Your task to perform on an android device: Search for "panasonic triple a" on target, select the first entry, add it to the cart, then select checkout. Image 0: 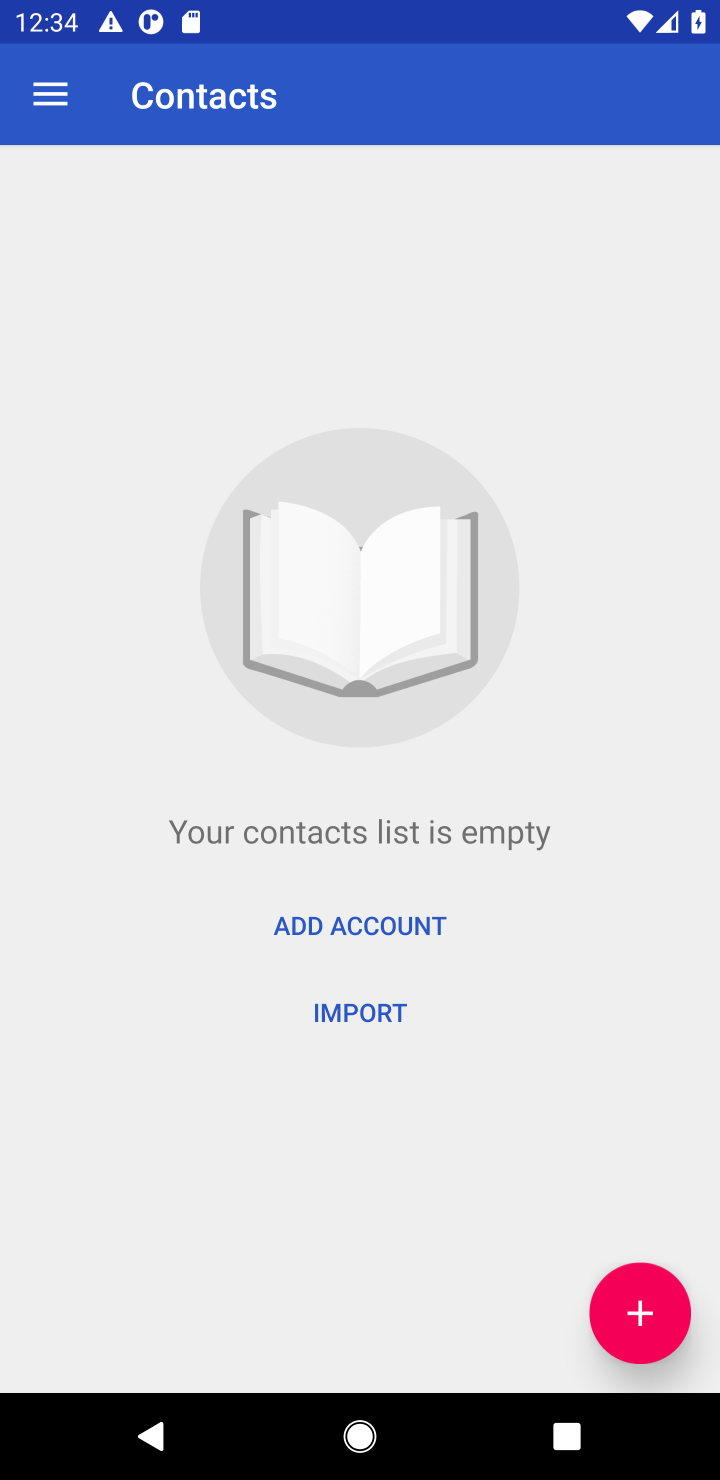
Step 0: press home button
Your task to perform on an android device: Search for "panasonic triple a" on target, select the first entry, add it to the cart, then select checkout. Image 1: 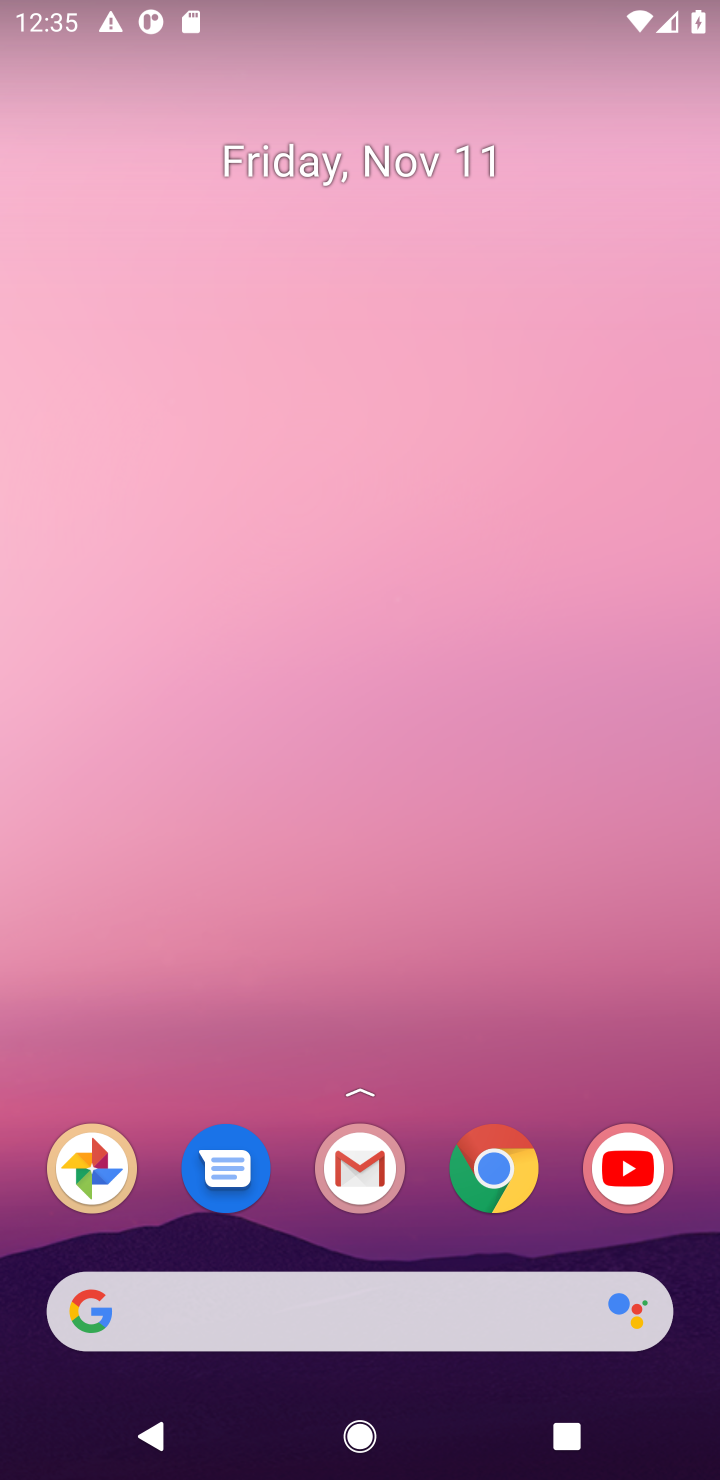
Step 1: click (484, 1178)
Your task to perform on an android device: Search for "panasonic triple a" on target, select the first entry, add it to the cart, then select checkout. Image 2: 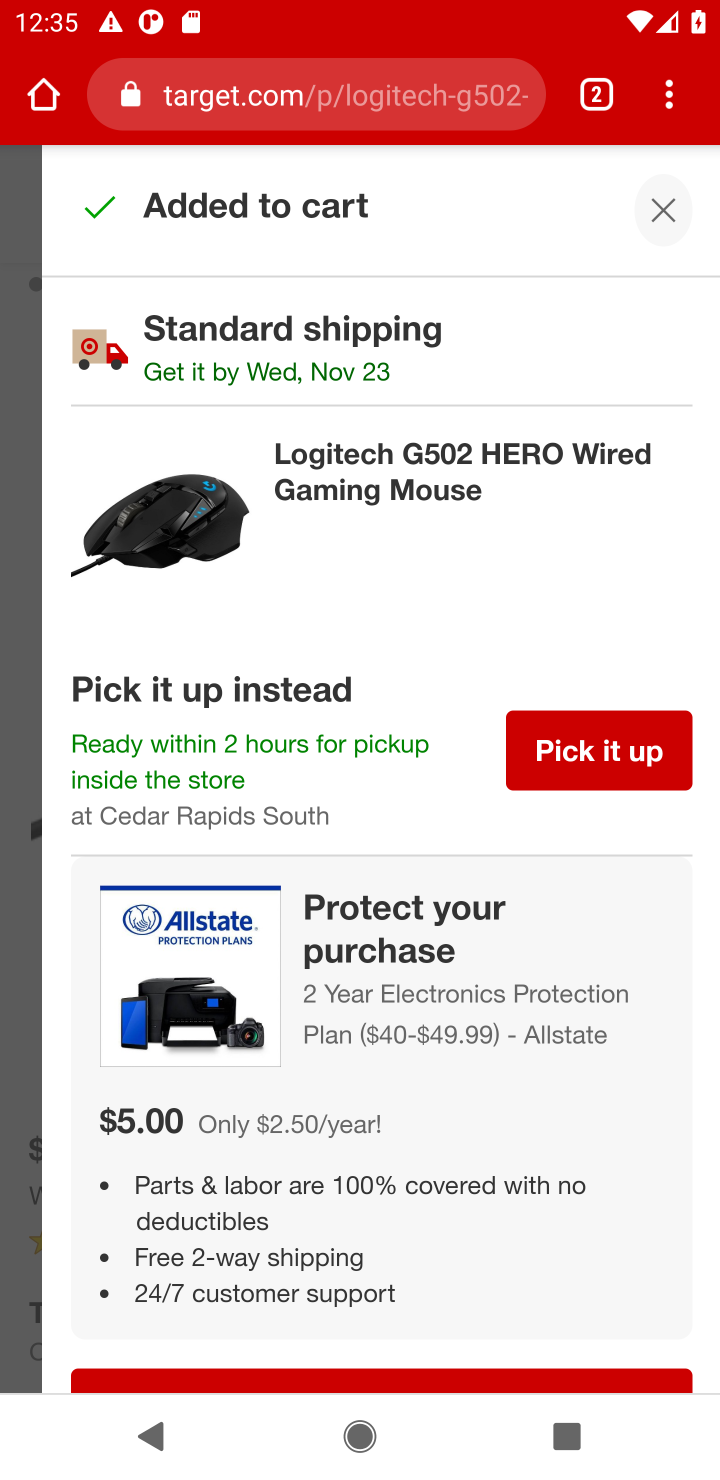
Step 2: click (660, 211)
Your task to perform on an android device: Search for "panasonic triple a" on target, select the first entry, add it to the cart, then select checkout. Image 3: 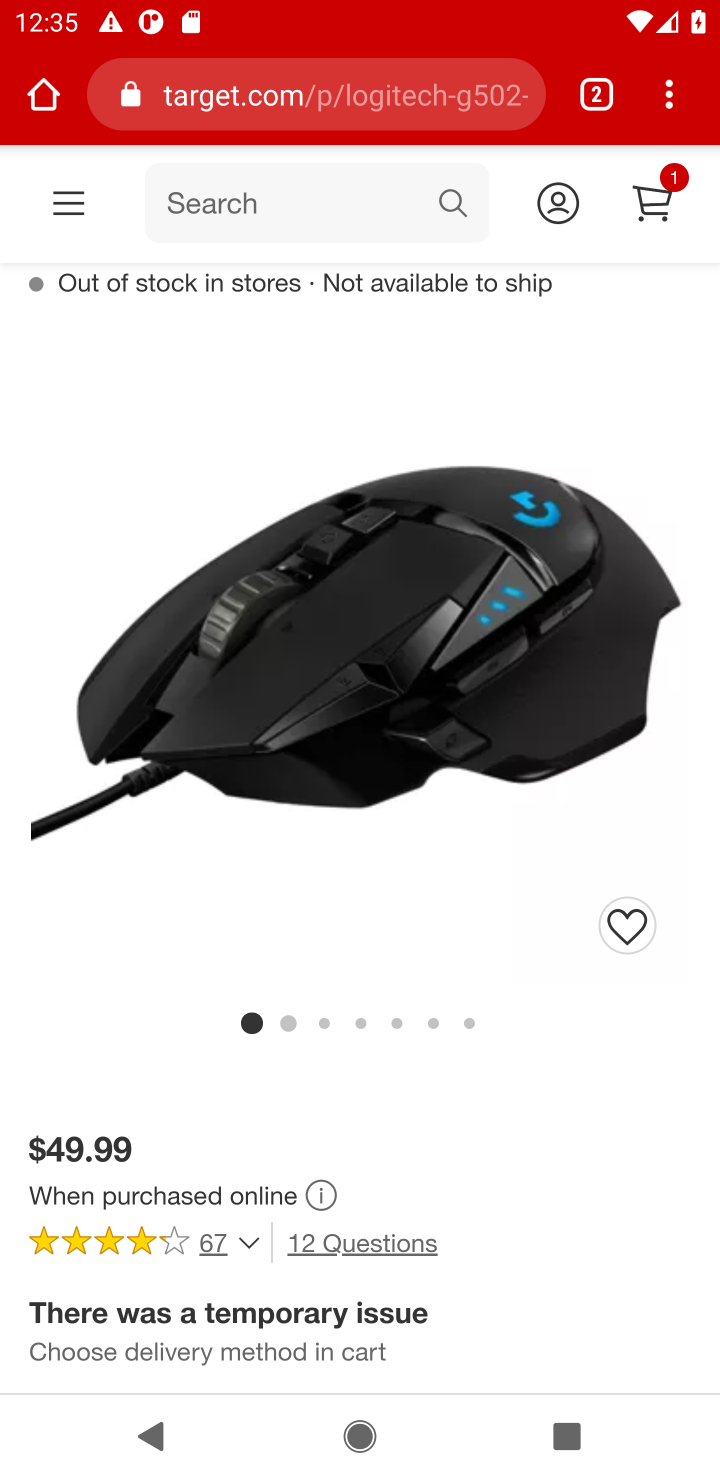
Step 3: click (436, 217)
Your task to perform on an android device: Search for "panasonic triple a" on target, select the first entry, add it to the cart, then select checkout. Image 4: 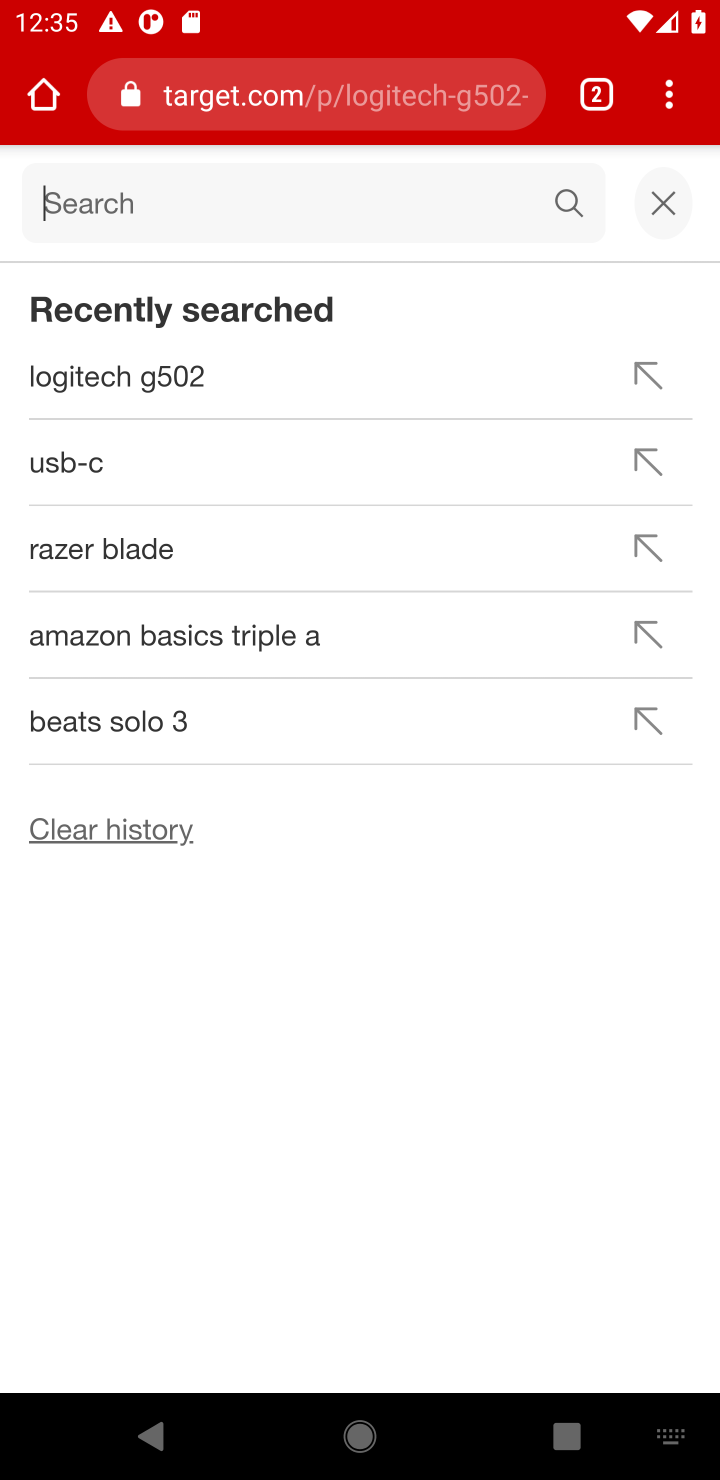
Step 4: type "panasonic triple a"
Your task to perform on an android device: Search for "panasonic triple a" on target, select the first entry, add it to the cart, then select checkout. Image 5: 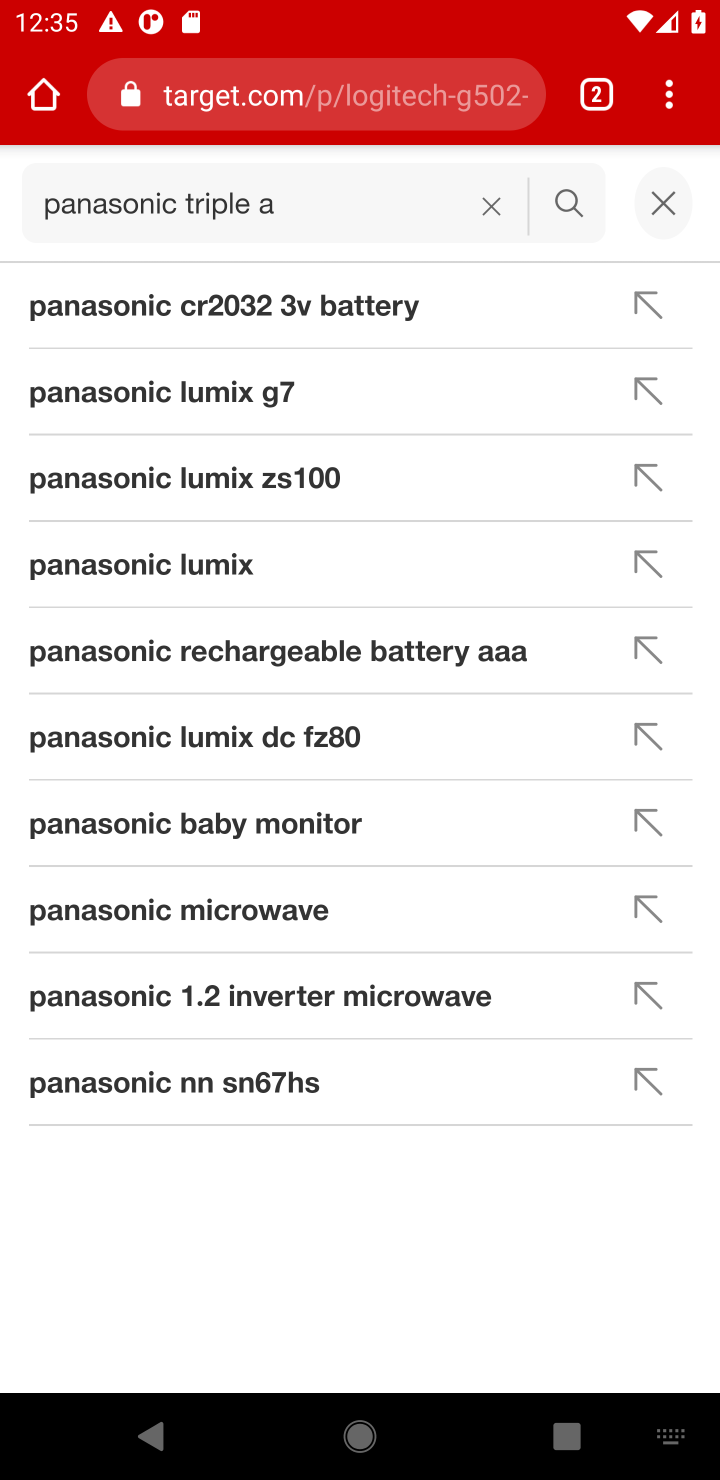
Step 5: click (564, 208)
Your task to perform on an android device: Search for "panasonic triple a" on target, select the first entry, add it to the cart, then select checkout. Image 6: 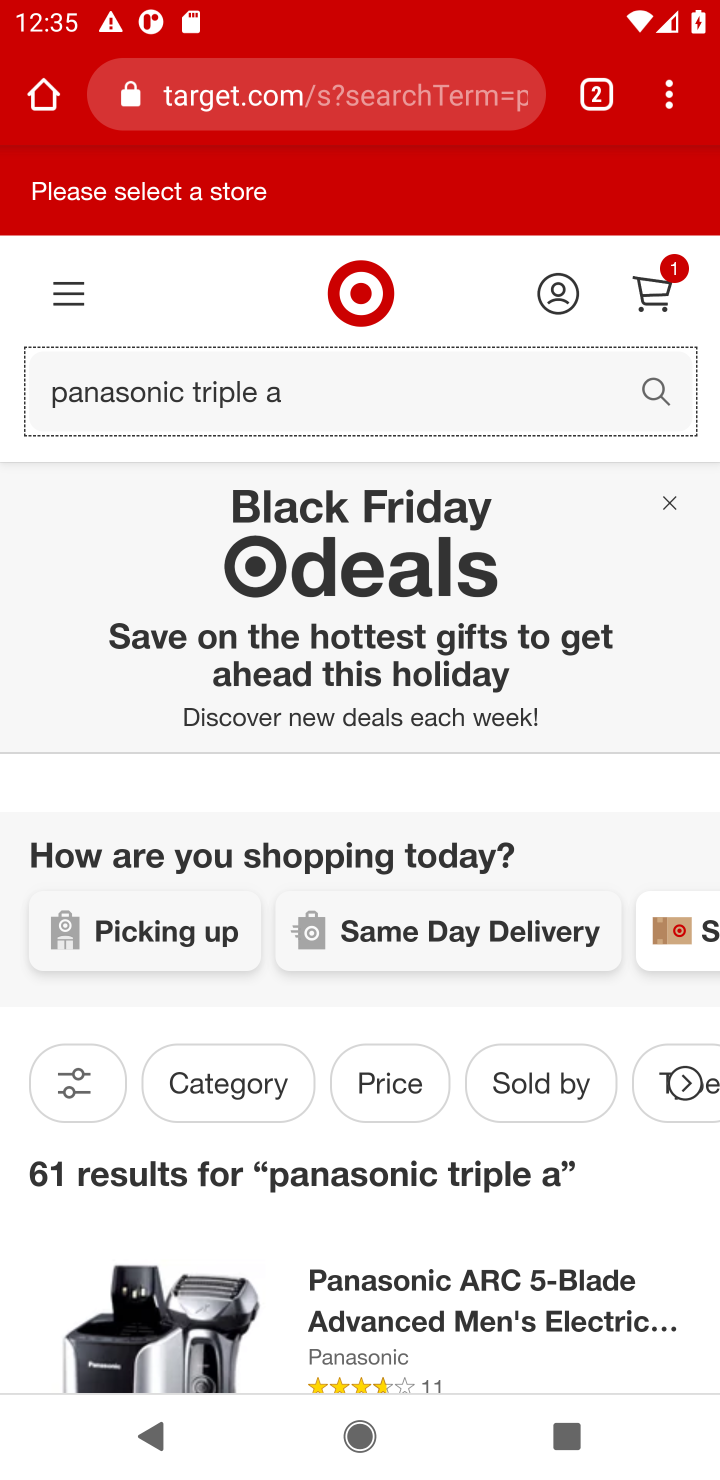
Step 6: task complete